Your task to perform on an android device: What's the news in Argentina? Image 0: 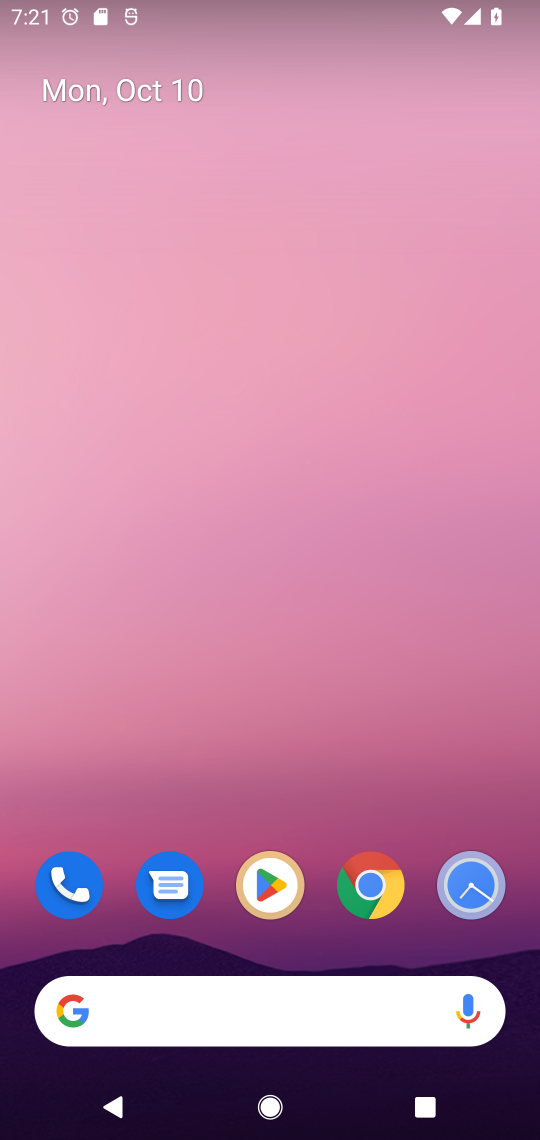
Step 0: click (372, 891)
Your task to perform on an android device: What's the news in Argentina? Image 1: 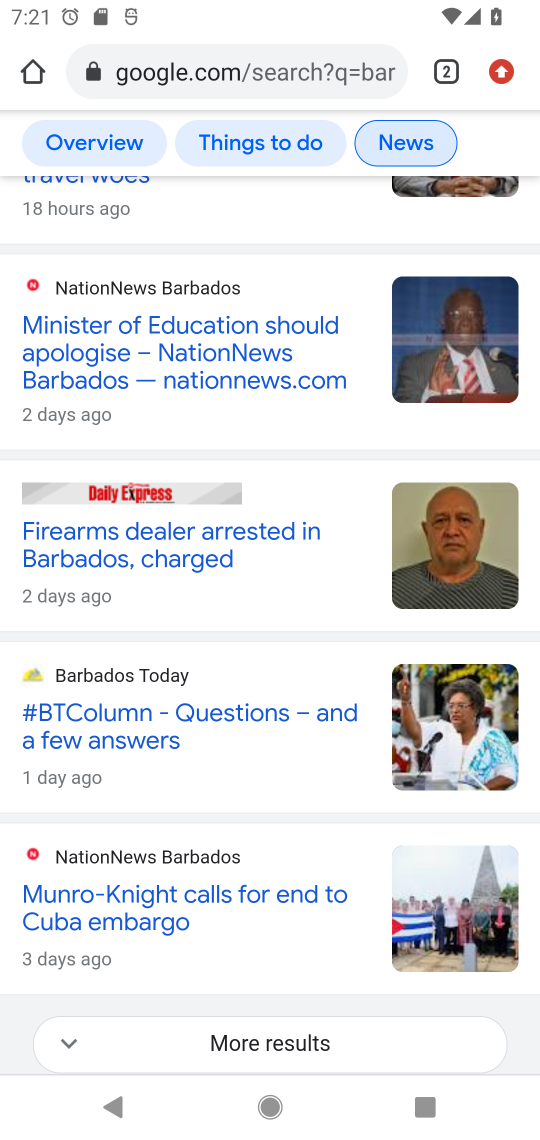
Step 1: click (165, 74)
Your task to perform on an android device: What's the news in Argentina? Image 2: 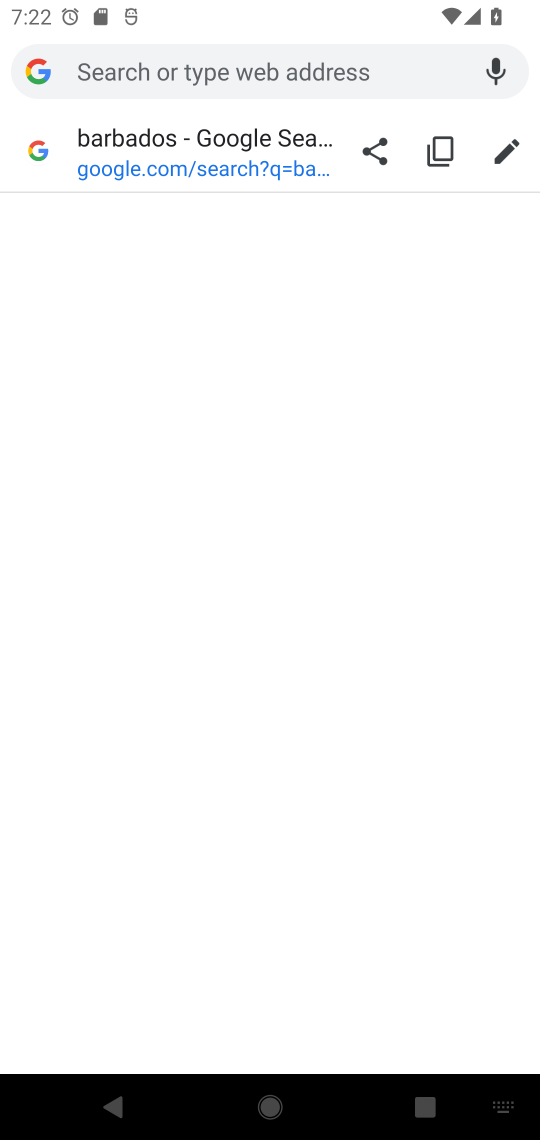
Step 2: type "Argentina"
Your task to perform on an android device: What's the news in Argentina? Image 3: 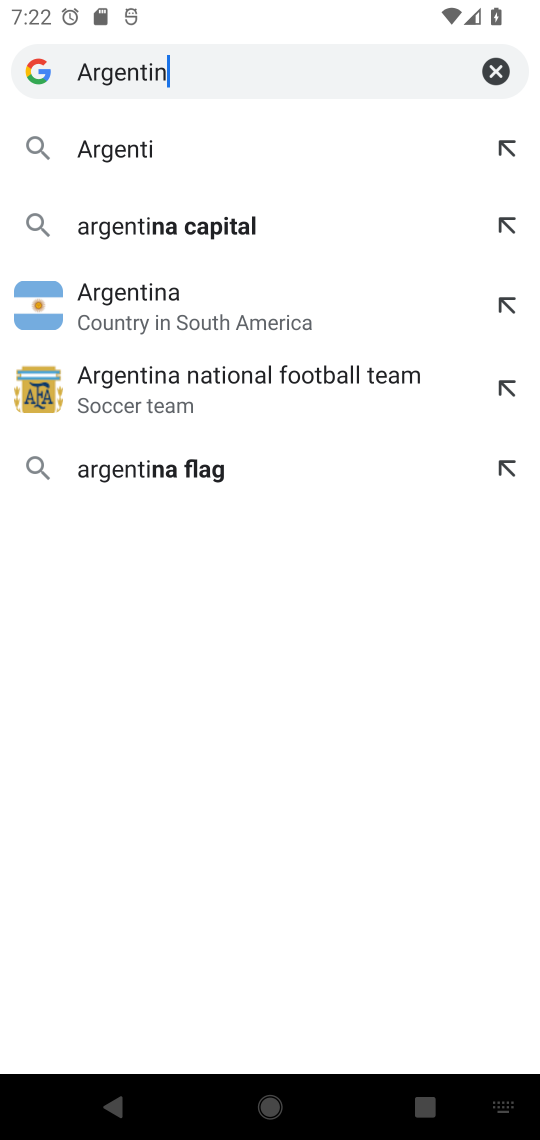
Step 3: type ""
Your task to perform on an android device: What's the news in Argentina? Image 4: 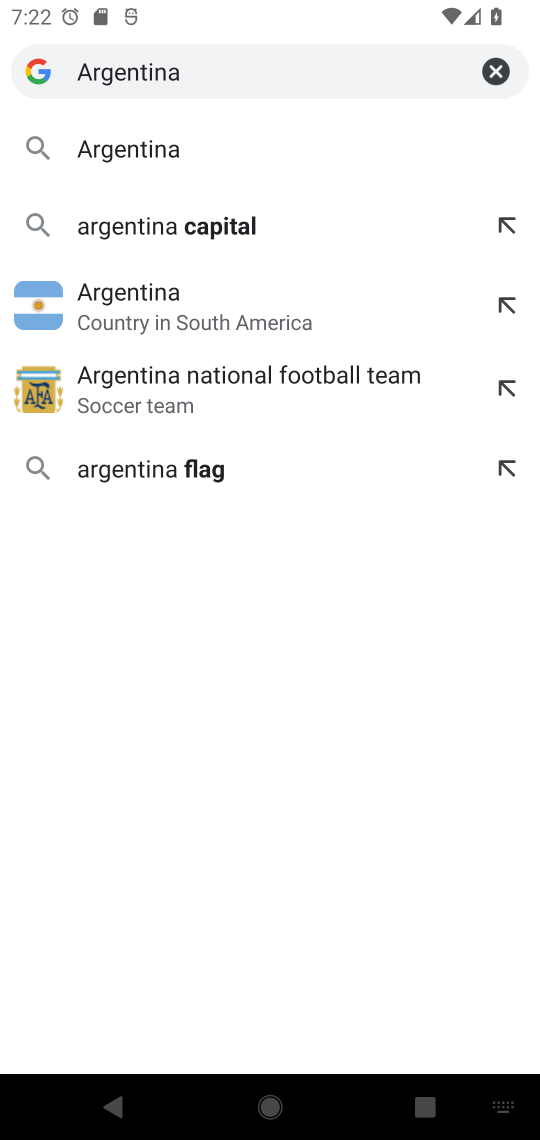
Step 4: click (172, 149)
Your task to perform on an android device: What's the news in Argentina? Image 5: 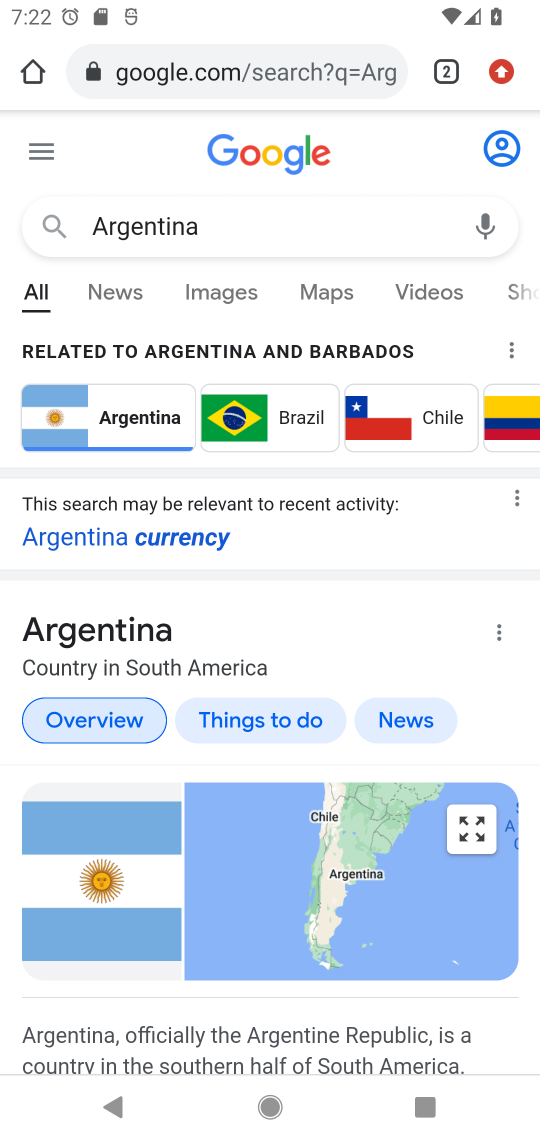
Step 5: click (412, 725)
Your task to perform on an android device: What's the news in Argentina? Image 6: 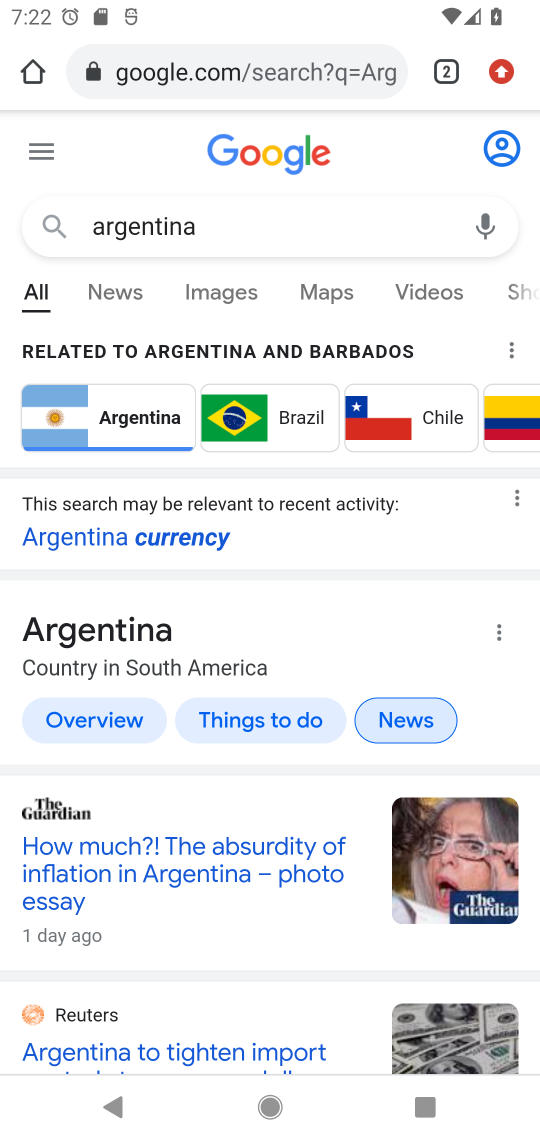
Step 6: task complete